Your task to perform on an android device: read, delete, or share a saved page in the chrome app Image 0: 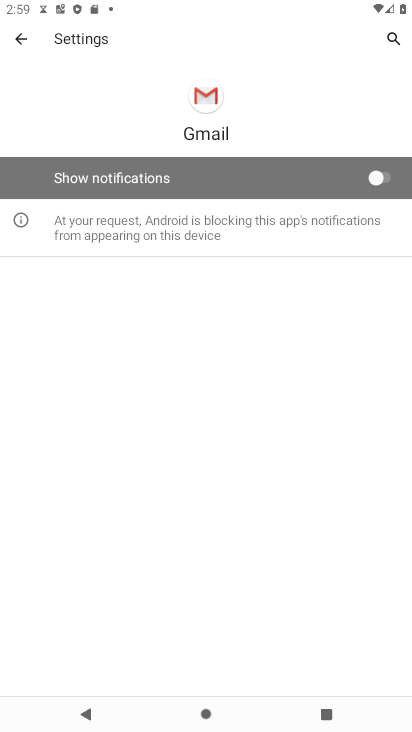
Step 0: press home button
Your task to perform on an android device: read, delete, or share a saved page in the chrome app Image 1: 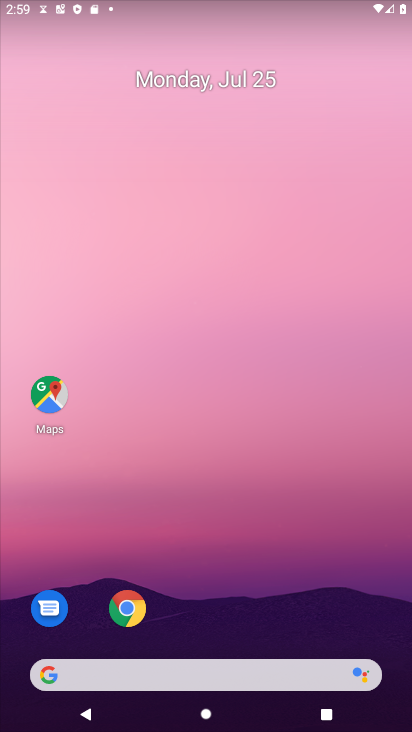
Step 1: drag from (204, 589) to (186, 8)
Your task to perform on an android device: read, delete, or share a saved page in the chrome app Image 2: 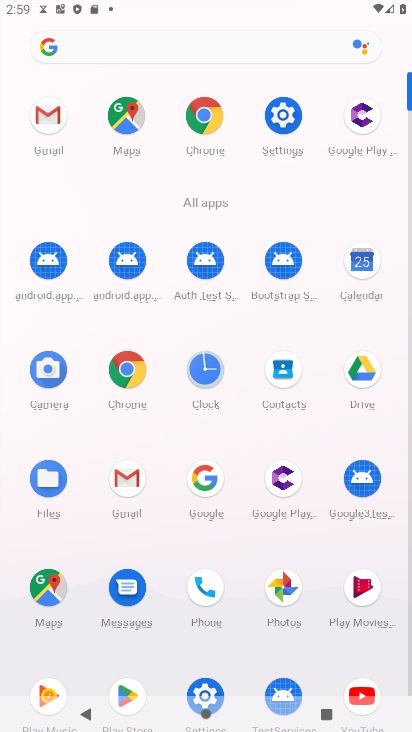
Step 2: click (129, 396)
Your task to perform on an android device: read, delete, or share a saved page in the chrome app Image 3: 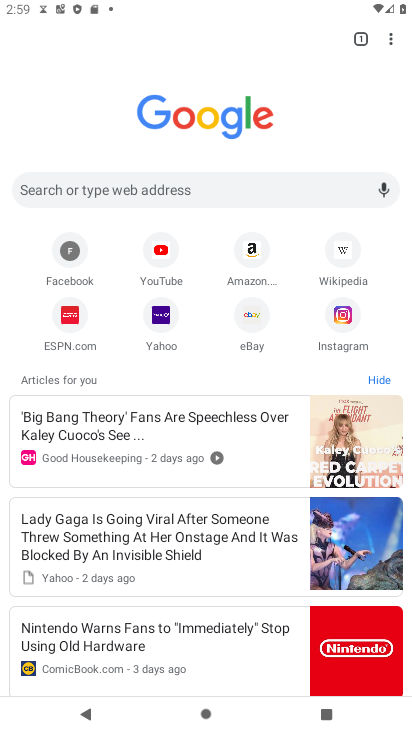
Step 3: click (388, 36)
Your task to perform on an android device: read, delete, or share a saved page in the chrome app Image 4: 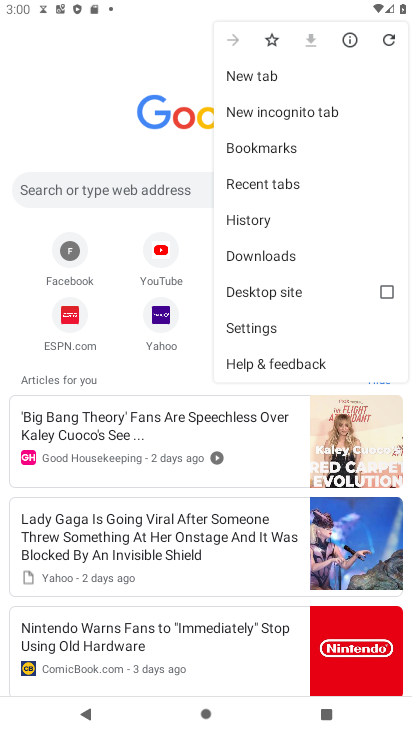
Step 4: click (280, 257)
Your task to perform on an android device: read, delete, or share a saved page in the chrome app Image 5: 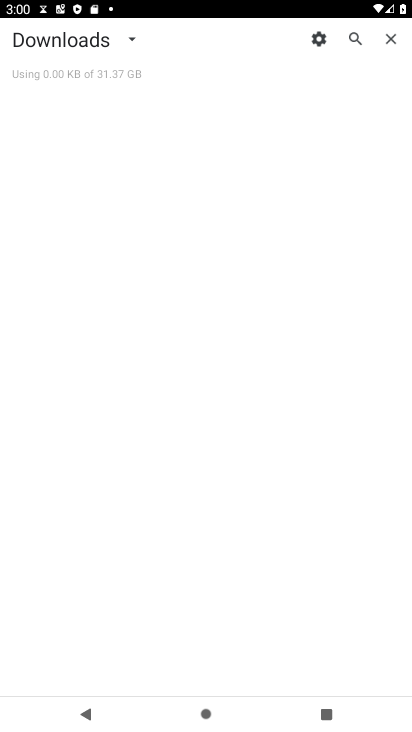
Step 5: task complete